Your task to perform on an android device: Go to battery settings Image 0: 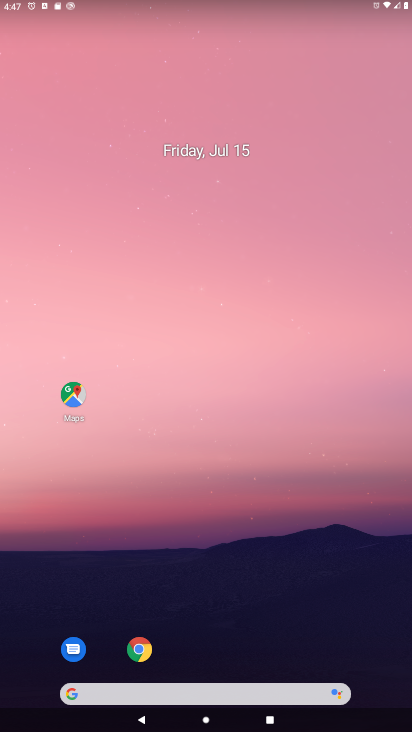
Step 0: drag from (375, 663) to (327, 30)
Your task to perform on an android device: Go to battery settings Image 1: 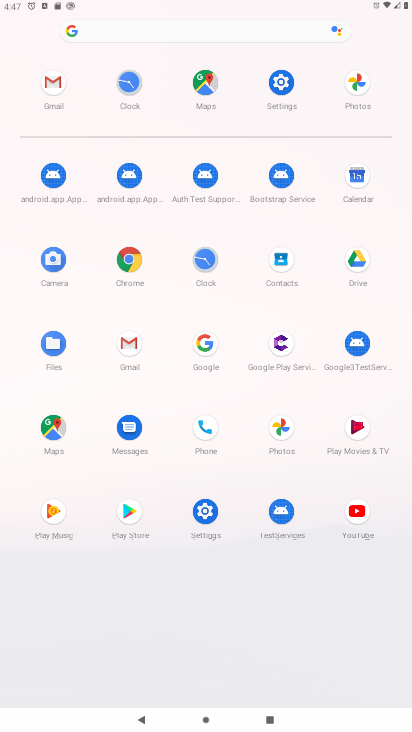
Step 1: click (204, 514)
Your task to perform on an android device: Go to battery settings Image 2: 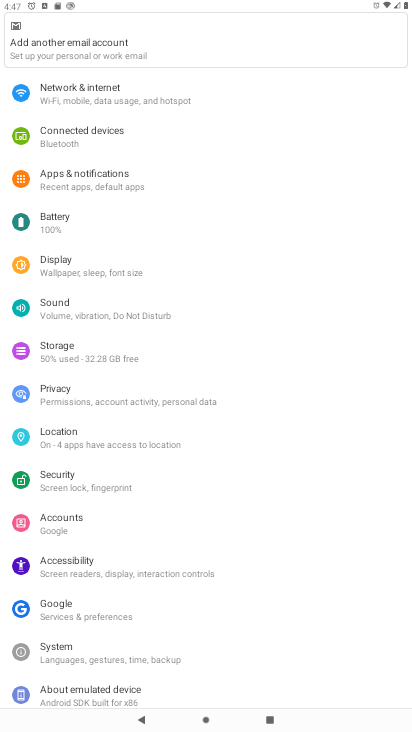
Step 2: click (43, 214)
Your task to perform on an android device: Go to battery settings Image 3: 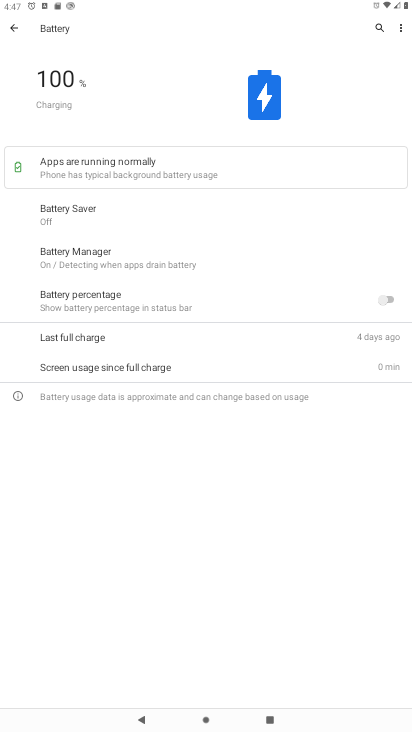
Step 3: task complete